Your task to perform on an android device: toggle sleep mode Image 0: 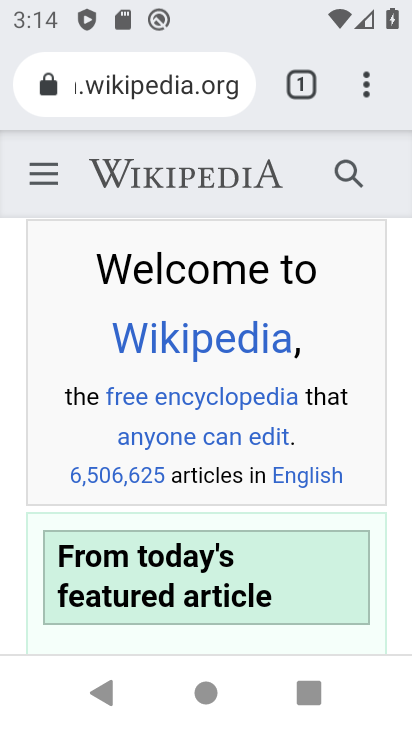
Step 0: press home button
Your task to perform on an android device: toggle sleep mode Image 1: 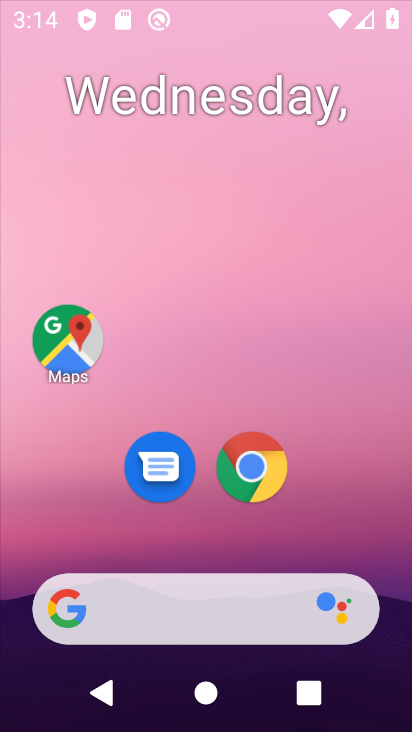
Step 1: drag from (307, 355) to (304, 115)
Your task to perform on an android device: toggle sleep mode Image 2: 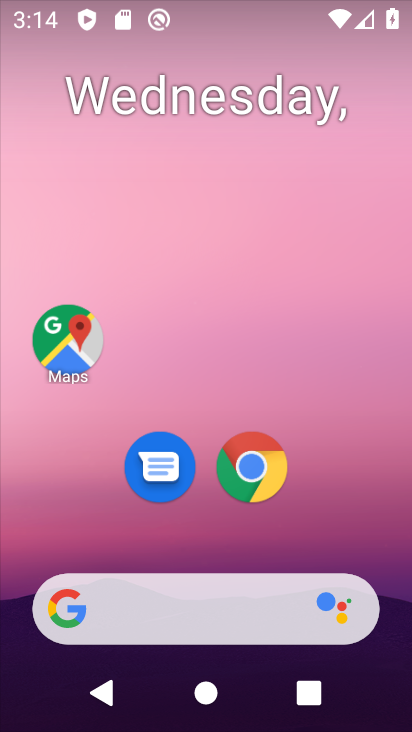
Step 2: drag from (309, 190) to (306, 0)
Your task to perform on an android device: toggle sleep mode Image 3: 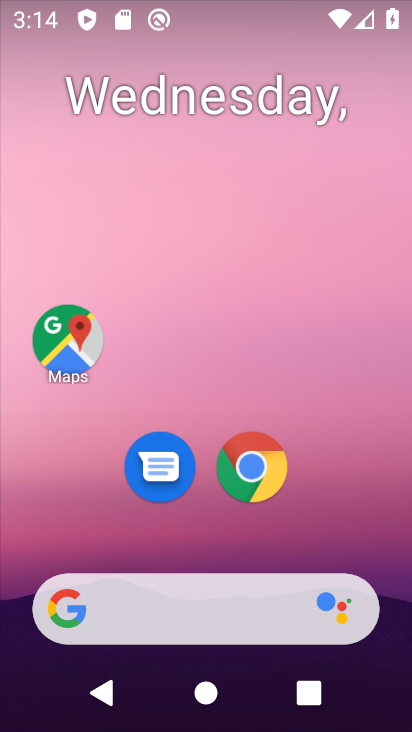
Step 3: drag from (261, 548) to (205, 8)
Your task to perform on an android device: toggle sleep mode Image 4: 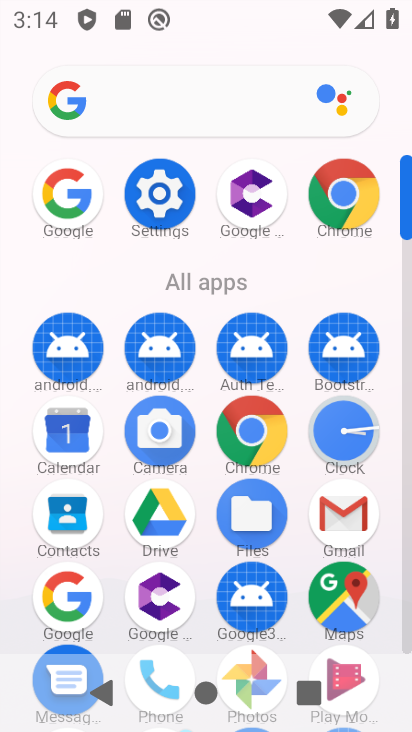
Step 4: click (177, 200)
Your task to perform on an android device: toggle sleep mode Image 5: 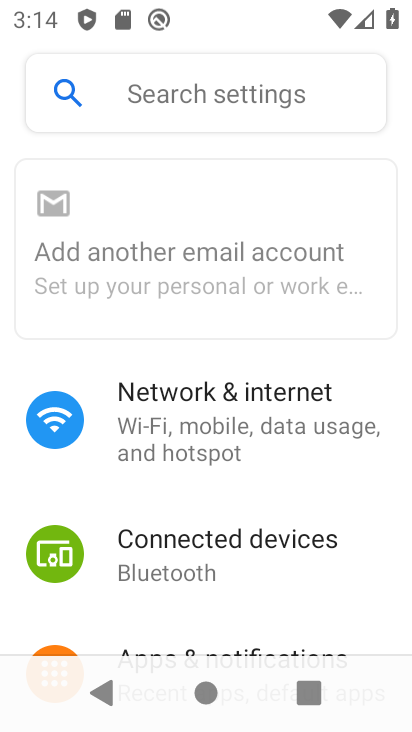
Step 5: drag from (269, 552) to (297, 135)
Your task to perform on an android device: toggle sleep mode Image 6: 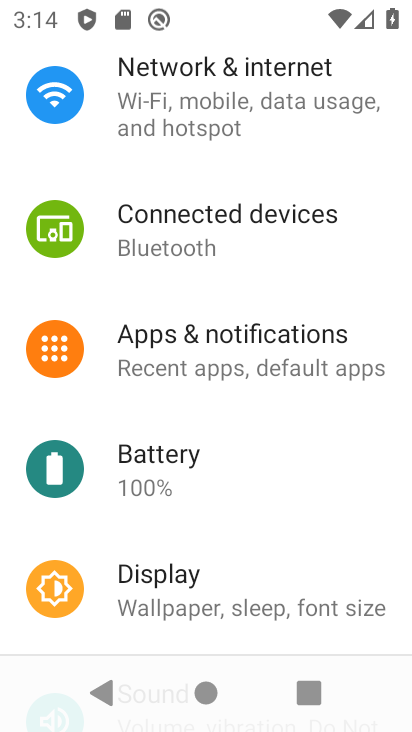
Step 6: click (277, 576)
Your task to perform on an android device: toggle sleep mode Image 7: 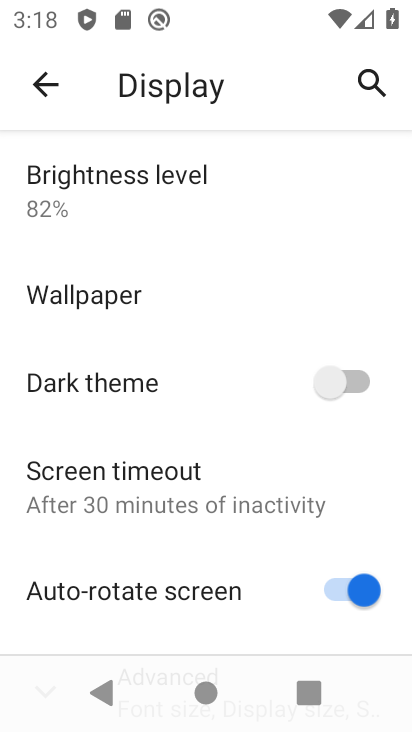
Step 7: task complete